Your task to perform on an android device: Turn off the flashlight Image 0: 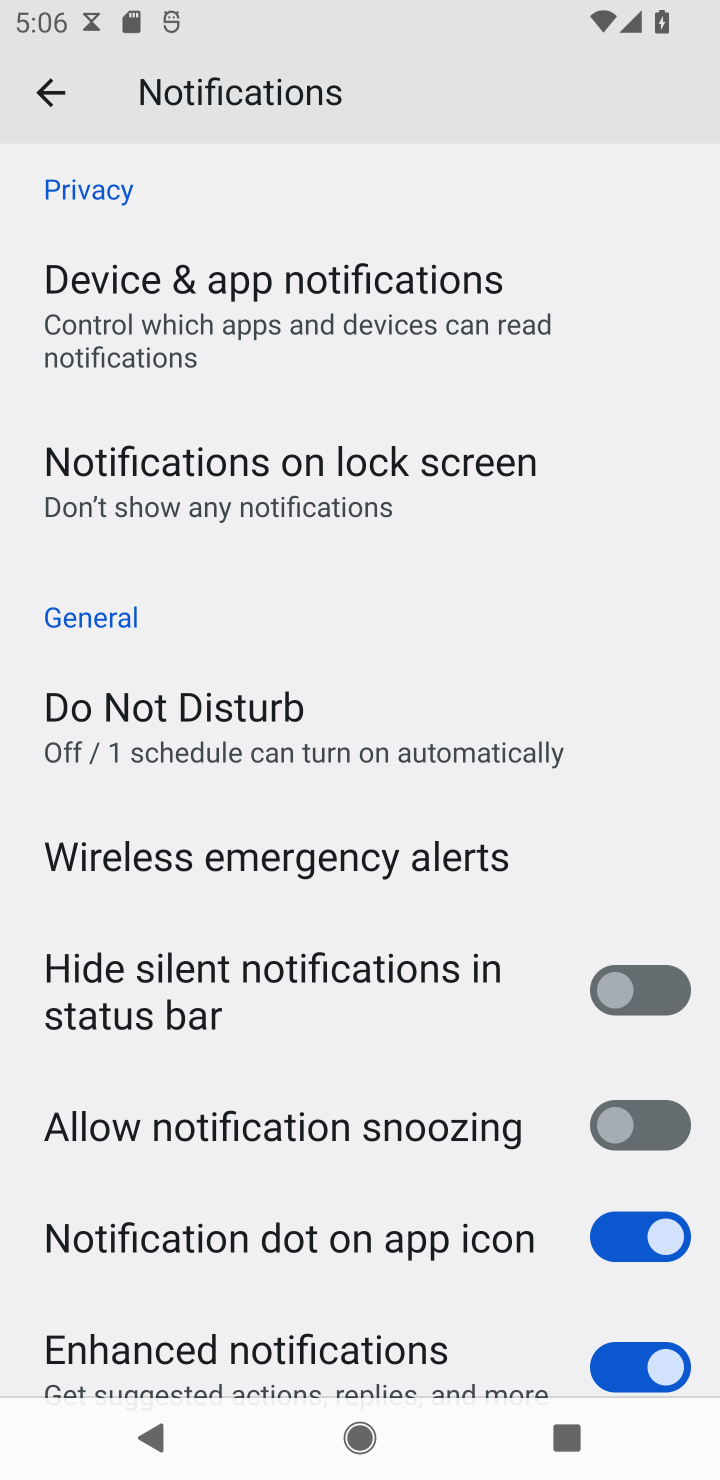
Step 0: click (39, 108)
Your task to perform on an android device: Turn off the flashlight Image 1: 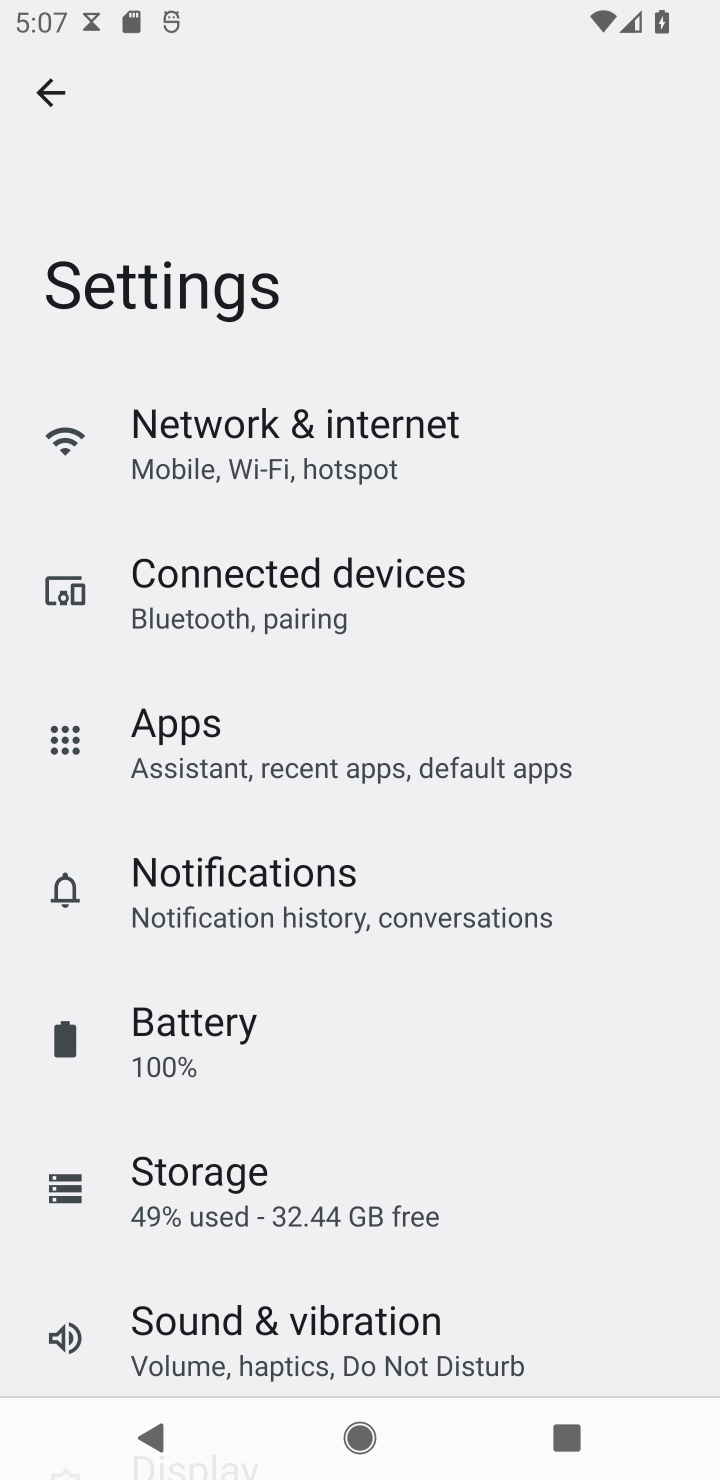
Step 1: task complete